Your task to perform on an android device: turn on the 12-hour format for clock Image 0: 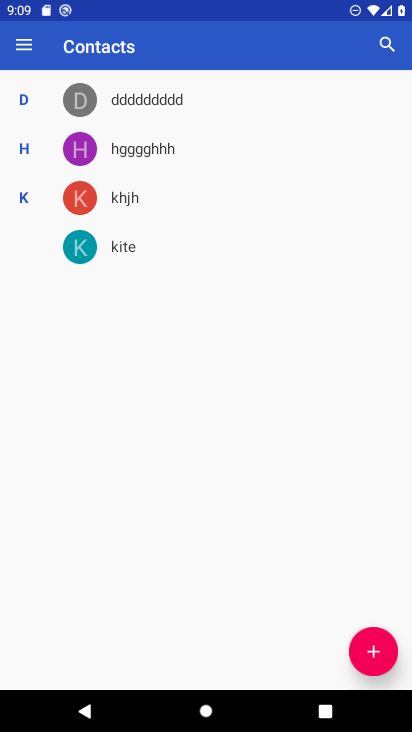
Step 0: press home button
Your task to perform on an android device: turn on the 12-hour format for clock Image 1: 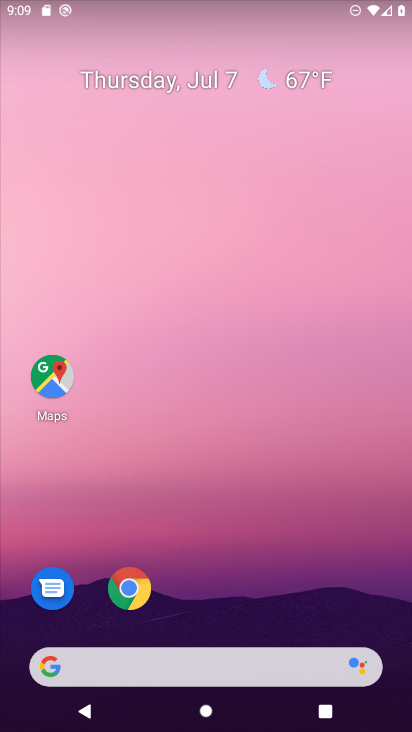
Step 1: drag from (265, 627) to (267, 129)
Your task to perform on an android device: turn on the 12-hour format for clock Image 2: 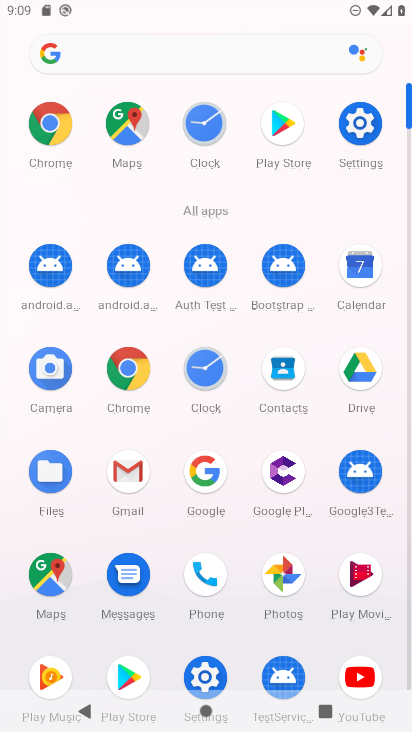
Step 2: click (205, 370)
Your task to perform on an android device: turn on the 12-hour format for clock Image 3: 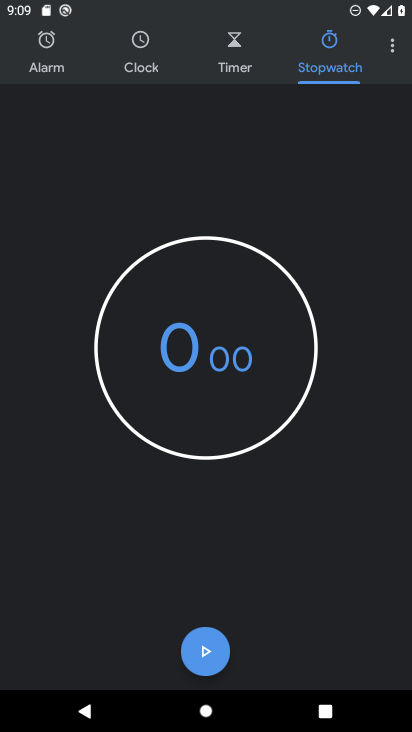
Step 3: click (395, 45)
Your task to perform on an android device: turn on the 12-hour format for clock Image 4: 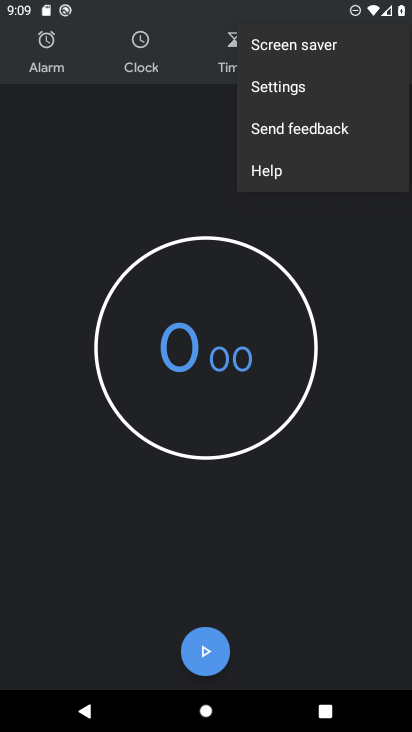
Step 4: click (295, 96)
Your task to perform on an android device: turn on the 12-hour format for clock Image 5: 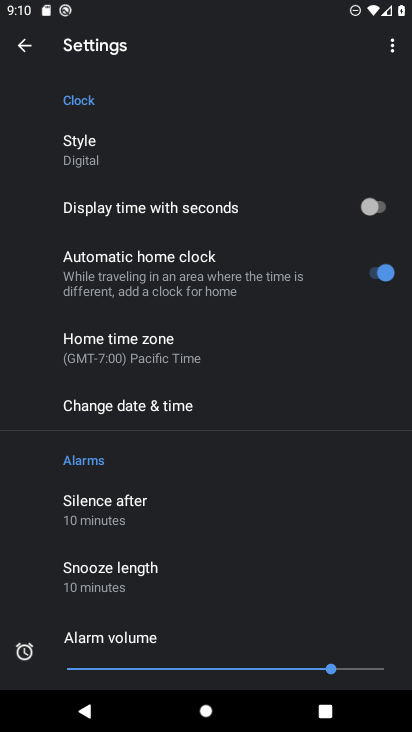
Step 5: click (164, 406)
Your task to perform on an android device: turn on the 12-hour format for clock Image 6: 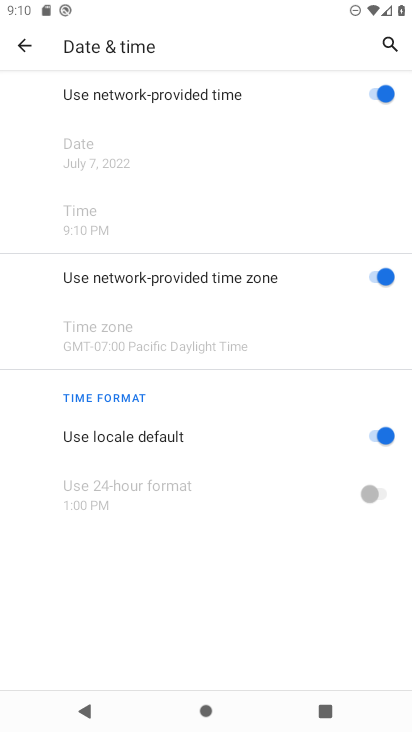
Step 6: task complete